Your task to perform on an android device: What is the news today? Image 0: 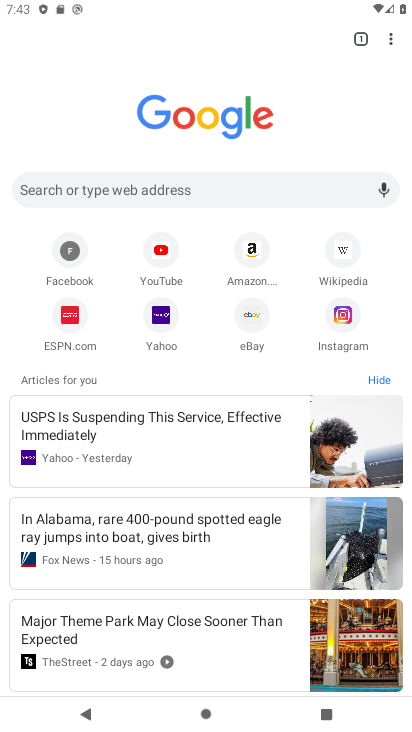
Step 0: press home button
Your task to perform on an android device: What is the news today? Image 1: 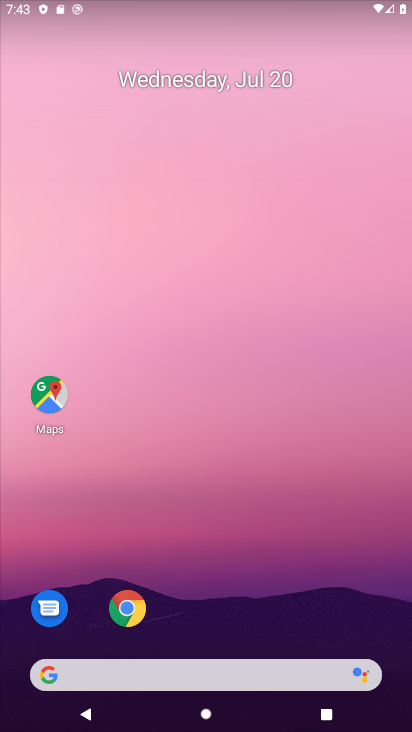
Step 1: click (135, 669)
Your task to perform on an android device: What is the news today? Image 2: 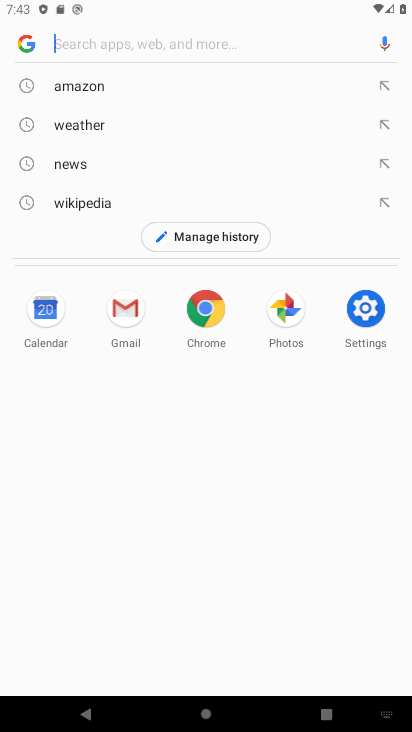
Step 2: type "news today ?"
Your task to perform on an android device: What is the news today? Image 3: 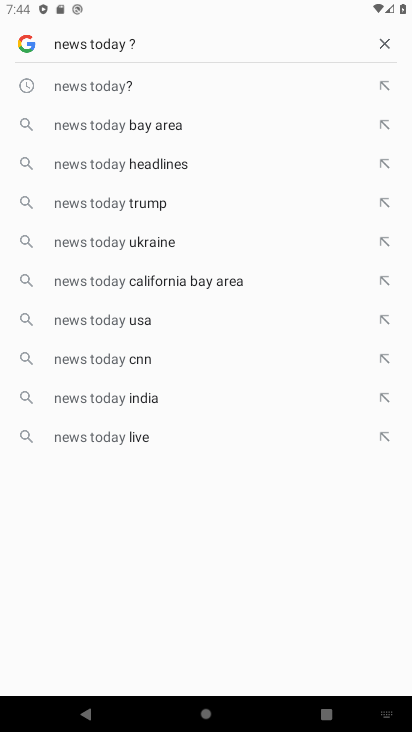
Step 3: click (111, 91)
Your task to perform on an android device: What is the news today? Image 4: 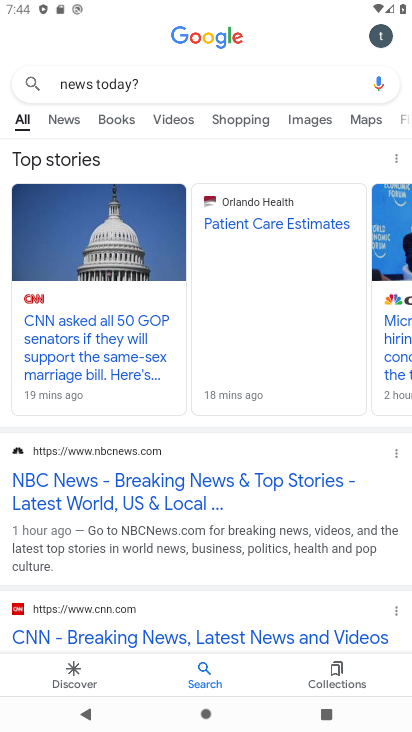
Step 4: task complete